Your task to perform on an android device: What's the weather going to be tomorrow? Image 0: 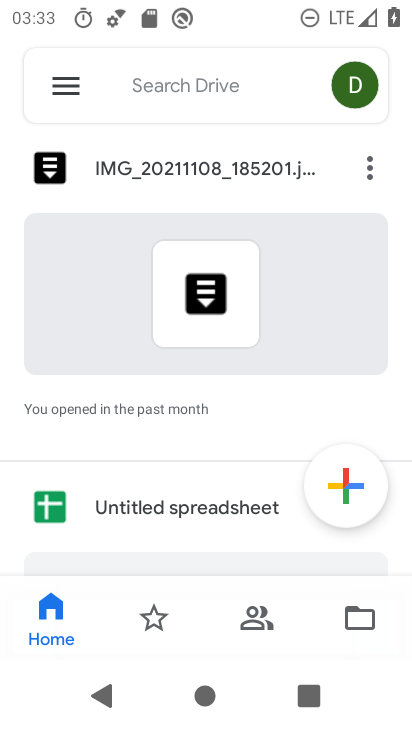
Step 0: press home button
Your task to perform on an android device: What's the weather going to be tomorrow? Image 1: 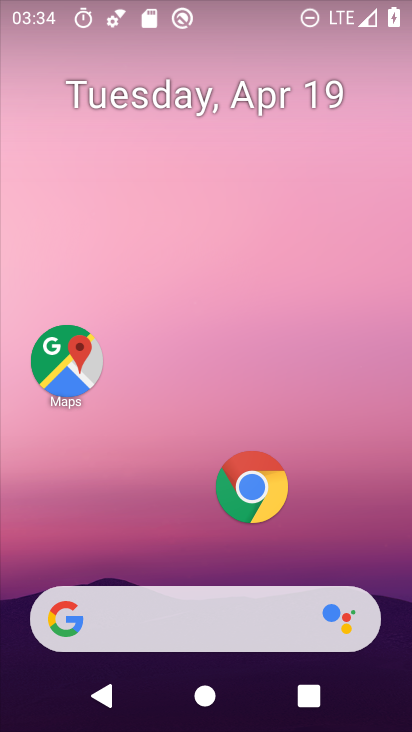
Step 1: click (153, 608)
Your task to perform on an android device: What's the weather going to be tomorrow? Image 2: 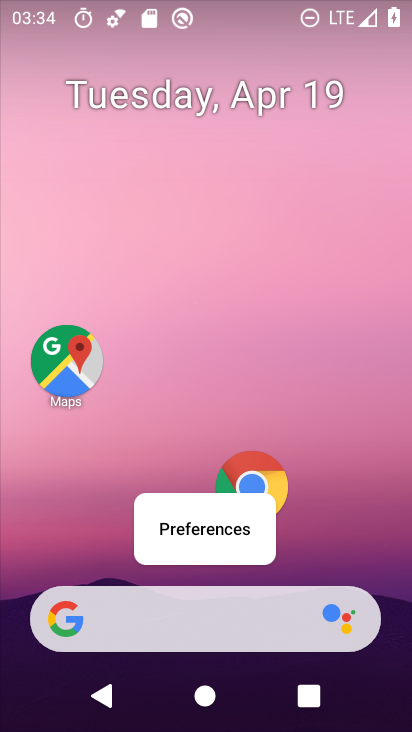
Step 2: click (162, 627)
Your task to perform on an android device: What's the weather going to be tomorrow? Image 3: 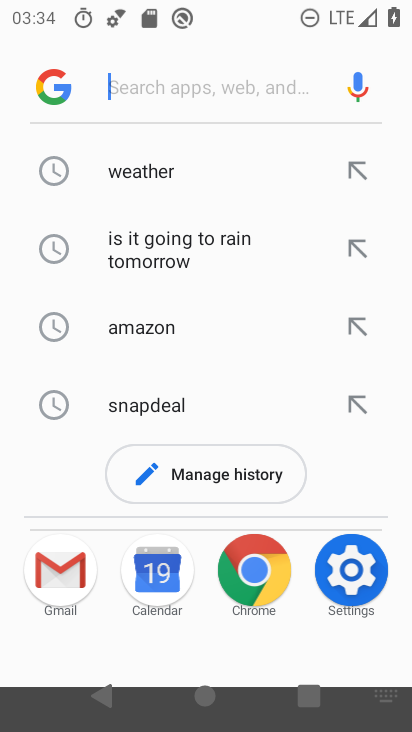
Step 3: click (183, 630)
Your task to perform on an android device: What's the weather going to be tomorrow? Image 4: 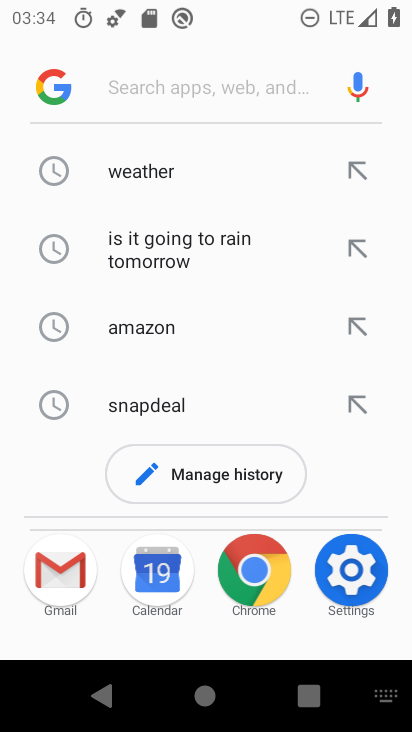
Step 4: click (160, 165)
Your task to perform on an android device: What's the weather going to be tomorrow? Image 5: 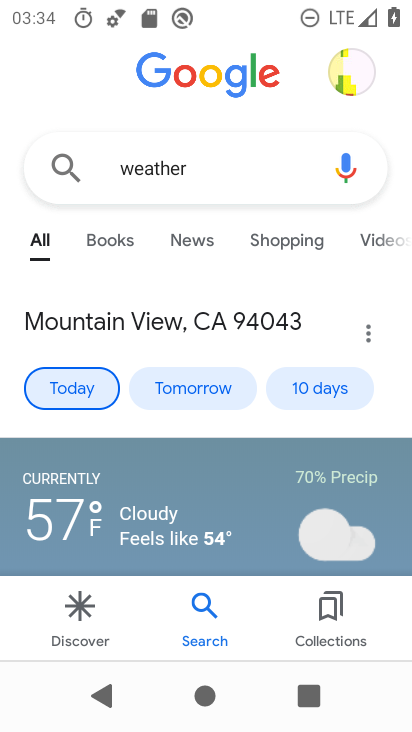
Step 5: drag from (164, 559) to (216, 446)
Your task to perform on an android device: What's the weather going to be tomorrow? Image 6: 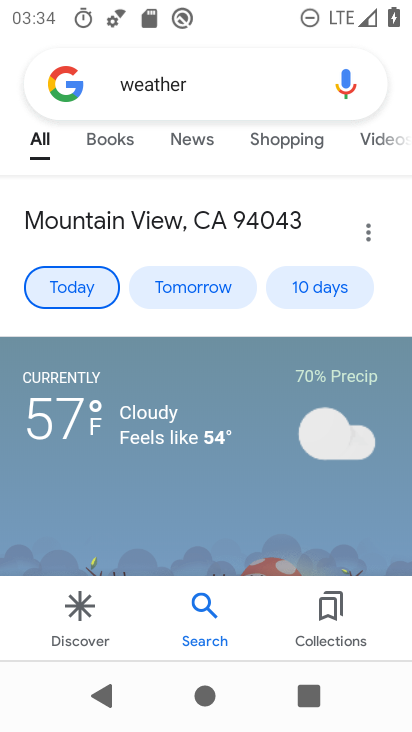
Step 6: click (174, 284)
Your task to perform on an android device: What's the weather going to be tomorrow? Image 7: 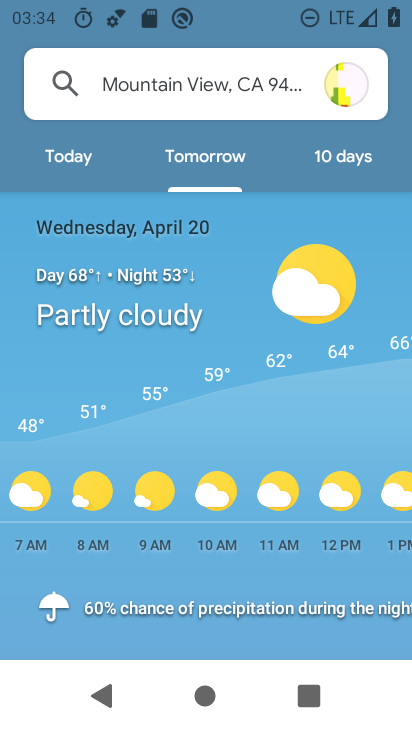
Step 7: task complete